Your task to perform on an android device: toggle show notifications on the lock screen Image 0: 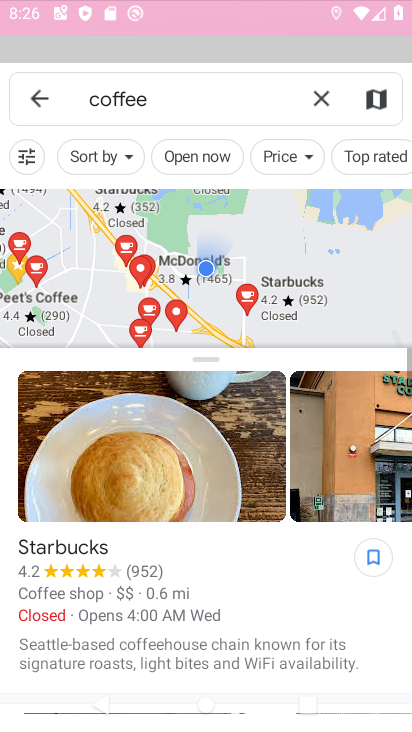
Step 0: press home button
Your task to perform on an android device: toggle show notifications on the lock screen Image 1: 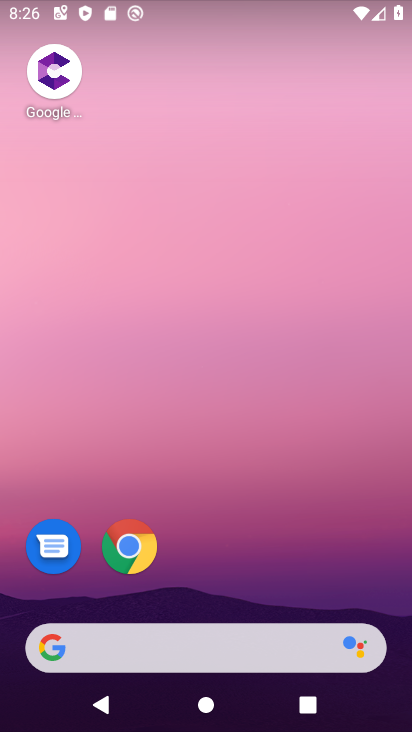
Step 1: drag from (230, 559) to (260, 140)
Your task to perform on an android device: toggle show notifications on the lock screen Image 2: 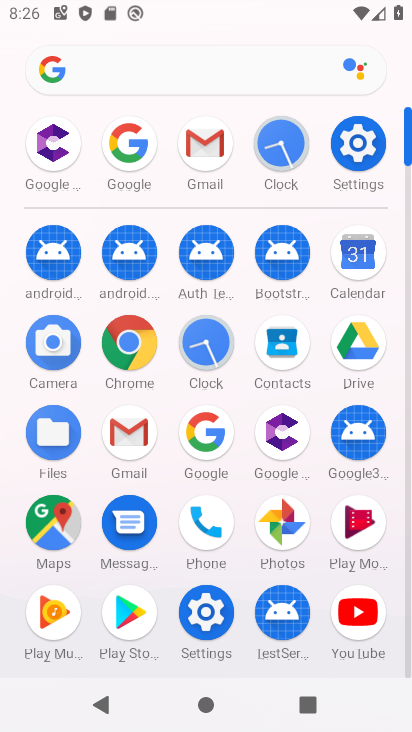
Step 2: click (362, 137)
Your task to perform on an android device: toggle show notifications on the lock screen Image 3: 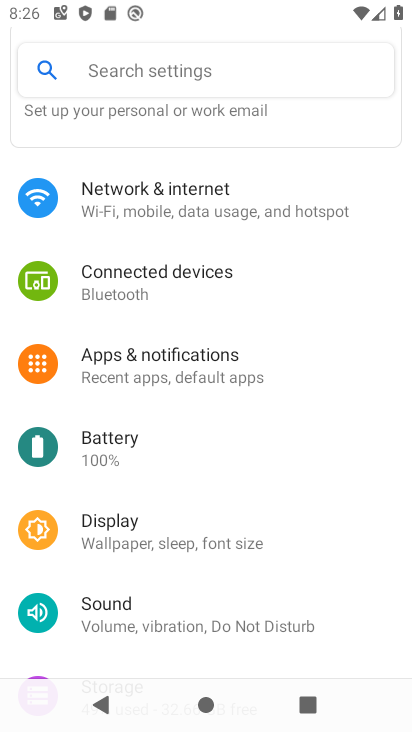
Step 3: click (181, 362)
Your task to perform on an android device: toggle show notifications on the lock screen Image 4: 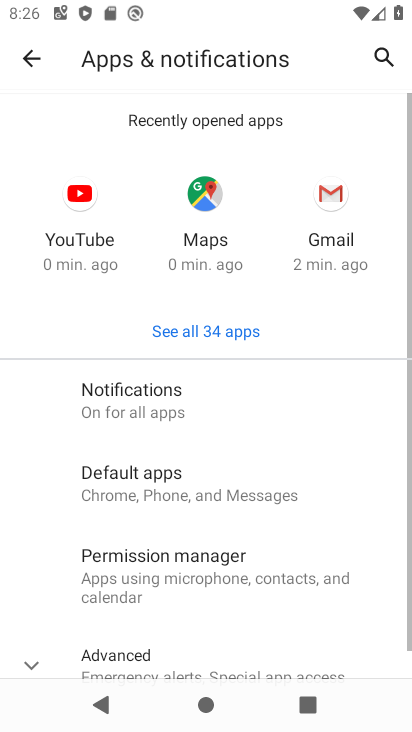
Step 4: click (139, 407)
Your task to perform on an android device: toggle show notifications on the lock screen Image 5: 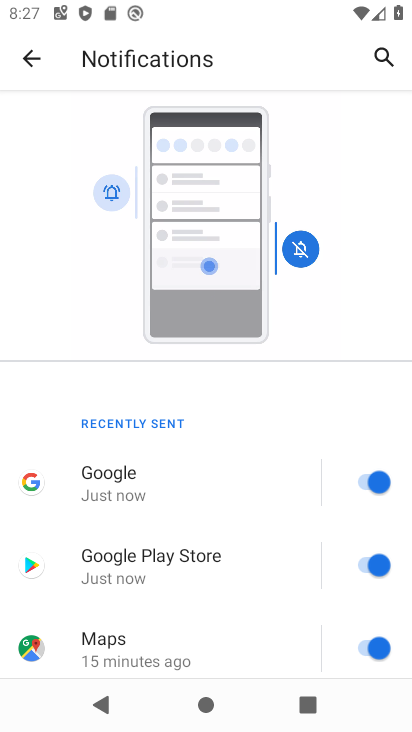
Step 5: drag from (227, 599) to (285, 175)
Your task to perform on an android device: toggle show notifications on the lock screen Image 6: 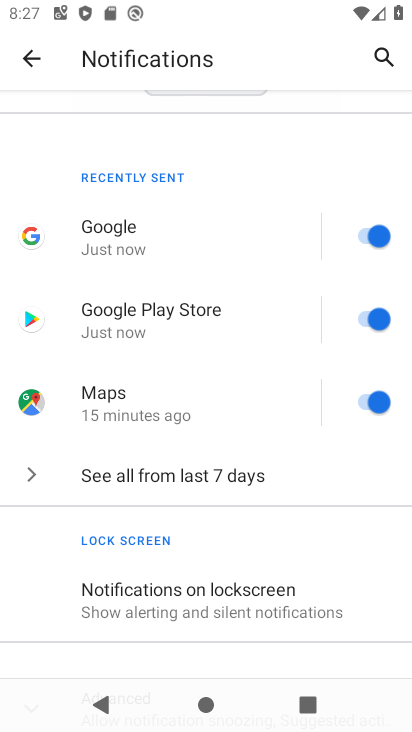
Step 6: click (188, 612)
Your task to perform on an android device: toggle show notifications on the lock screen Image 7: 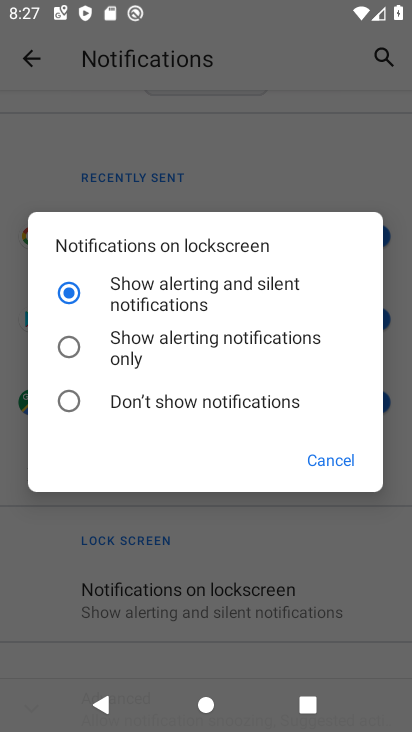
Step 7: click (107, 408)
Your task to perform on an android device: toggle show notifications on the lock screen Image 8: 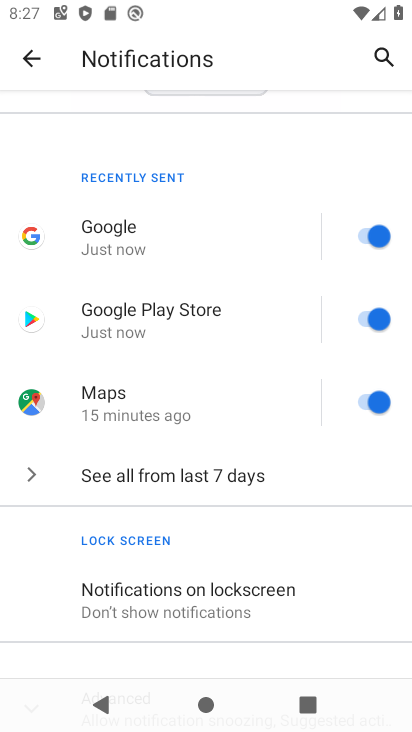
Step 8: task complete